Your task to perform on an android device: change your default location settings in chrome Image 0: 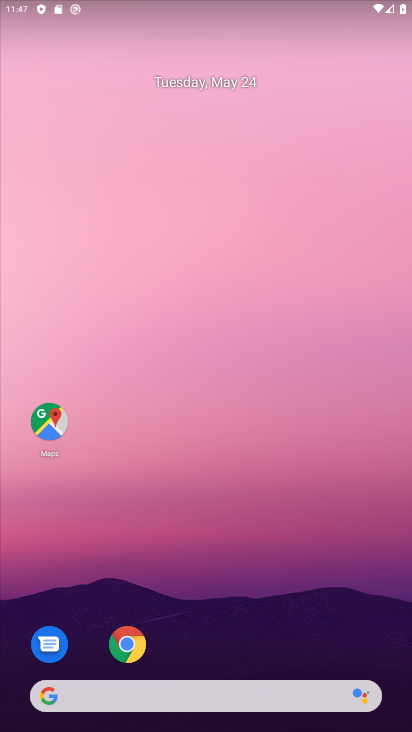
Step 0: click (129, 646)
Your task to perform on an android device: change your default location settings in chrome Image 1: 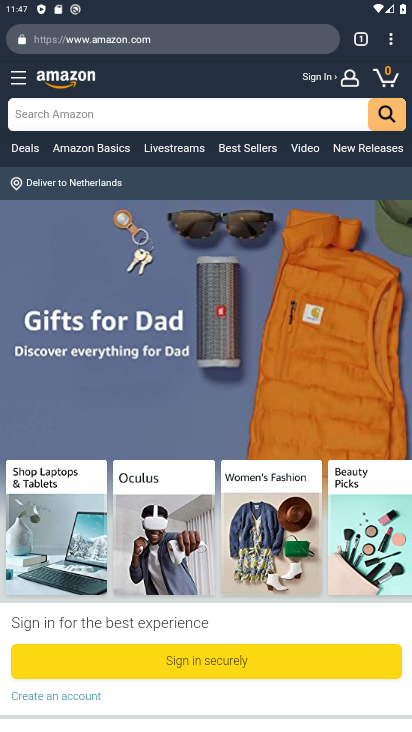
Step 1: click (389, 41)
Your task to perform on an android device: change your default location settings in chrome Image 2: 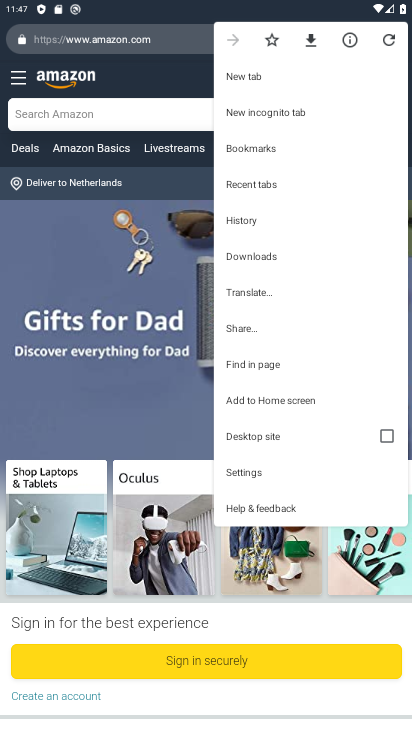
Step 2: click (253, 473)
Your task to perform on an android device: change your default location settings in chrome Image 3: 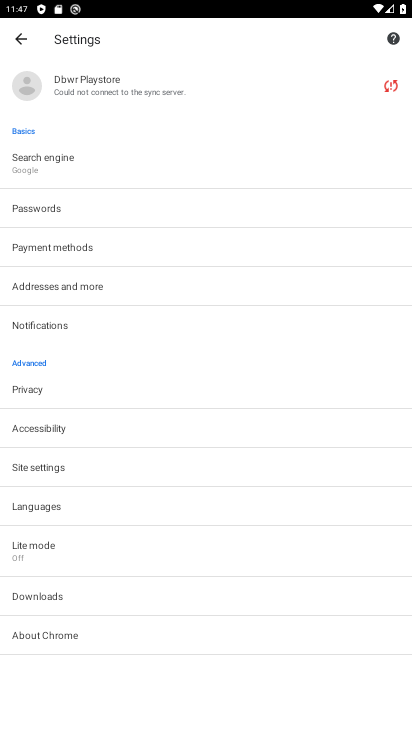
Step 3: click (36, 460)
Your task to perform on an android device: change your default location settings in chrome Image 4: 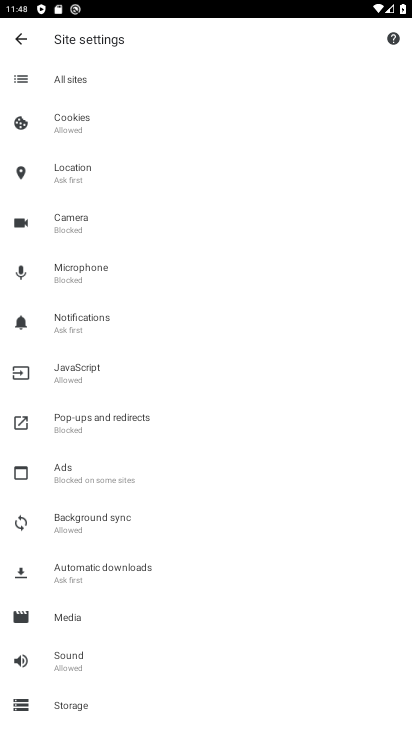
Step 4: click (84, 164)
Your task to perform on an android device: change your default location settings in chrome Image 5: 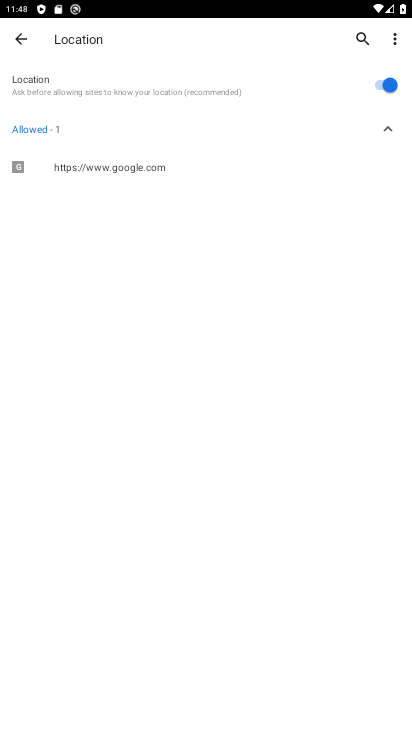
Step 5: click (384, 82)
Your task to perform on an android device: change your default location settings in chrome Image 6: 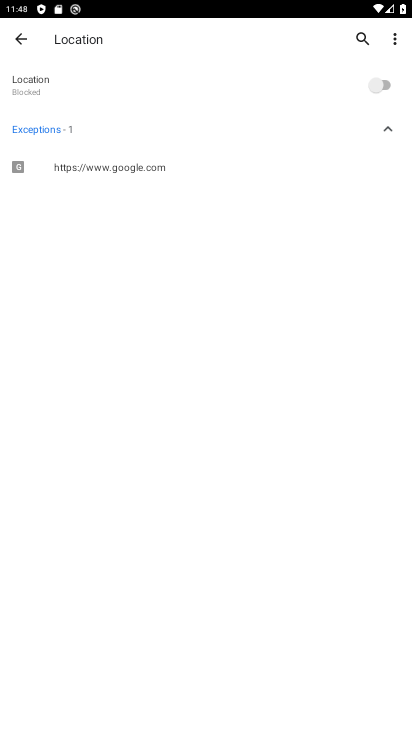
Step 6: task complete